Your task to perform on an android device: turn on airplane mode Image 0: 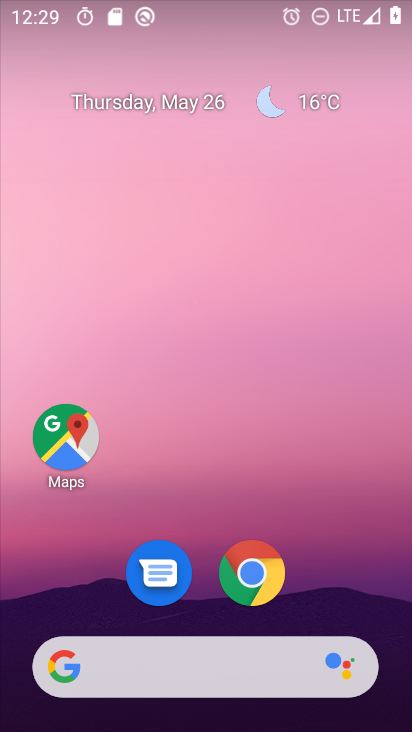
Step 0: drag from (343, 614) to (365, 10)
Your task to perform on an android device: turn on airplane mode Image 1: 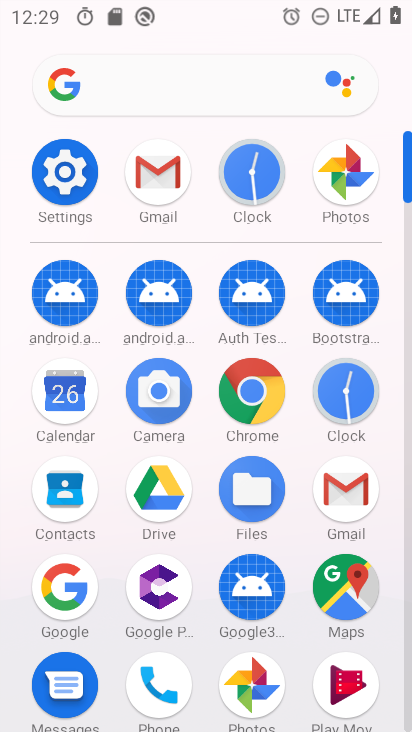
Step 1: click (66, 177)
Your task to perform on an android device: turn on airplane mode Image 2: 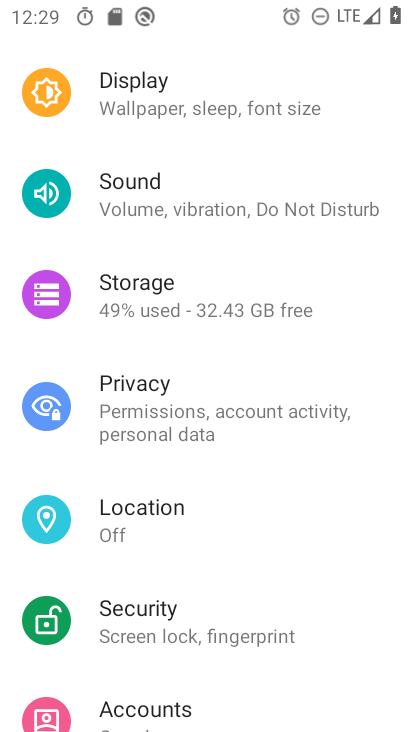
Step 2: drag from (242, 175) to (256, 503)
Your task to perform on an android device: turn on airplane mode Image 3: 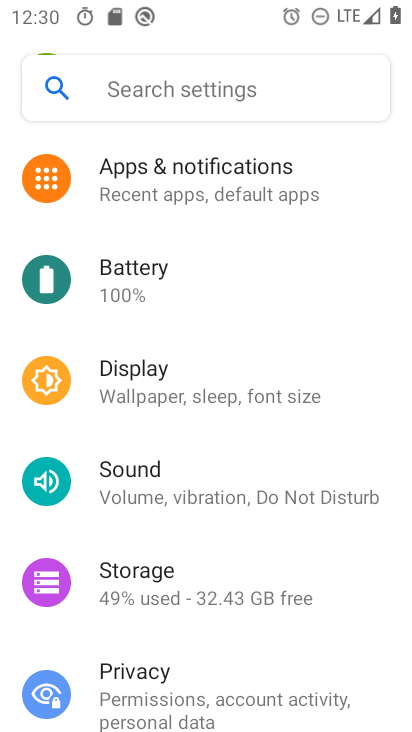
Step 3: drag from (299, 383) to (291, 556)
Your task to perform on an android device: turn on airplane mode Image 4: 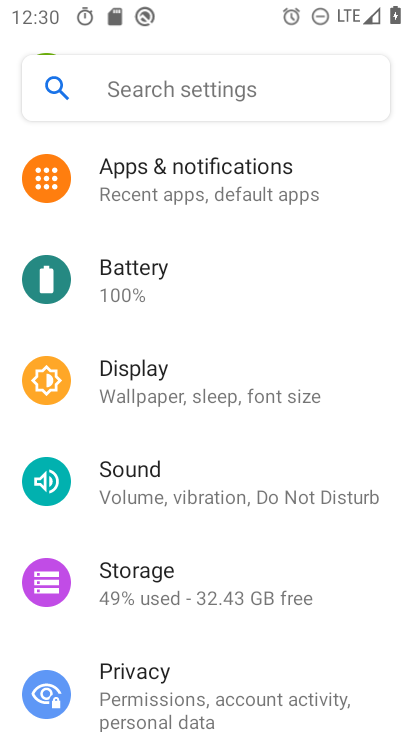
Step 4: drag from (292, 374) to (283, 531)
Your task to perform on an android device: turn on airplane mode Image 5: 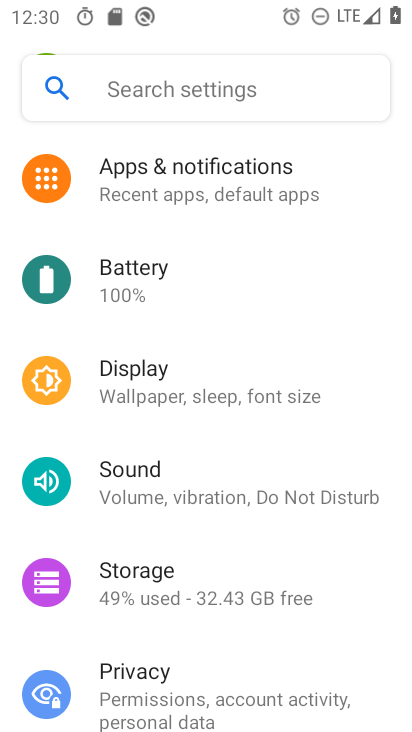
Step 5: drag from (302, 207) to (306, 505)
Your task to perform on an android device: turn on airplane mode Image 6: 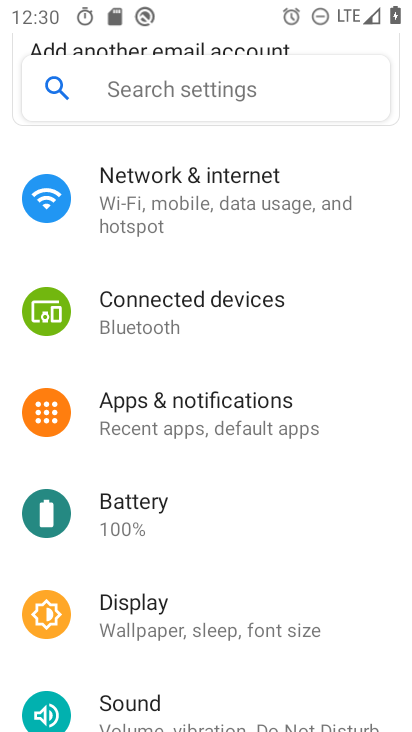
Step 6: click (214, 212)
Your task to perform on an android device: turn on airplane mode Image 7: 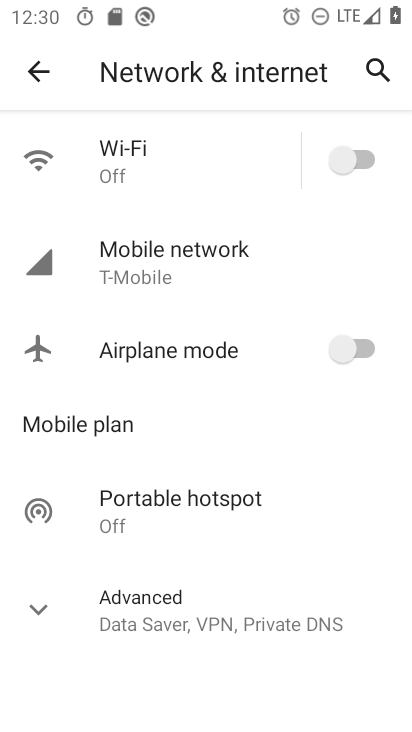
Step 7: click (333, 353)
Your task to perform on an android device: turn on airplane mode Image 8: 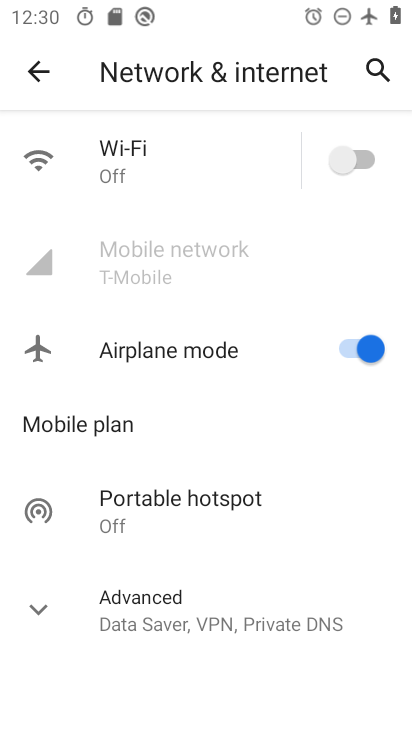
Step 8: task complete